Your task to perform on an android device: allow notifications from all sites in the chrome app Image 0: 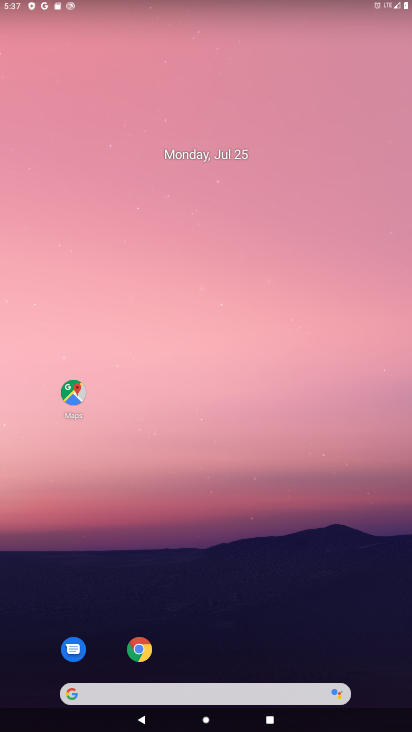
Step 0: drag from (274, 624) to (317, 60)
Your task to perform on an android device: allow notifications from all sites in the chrome app Image 1: 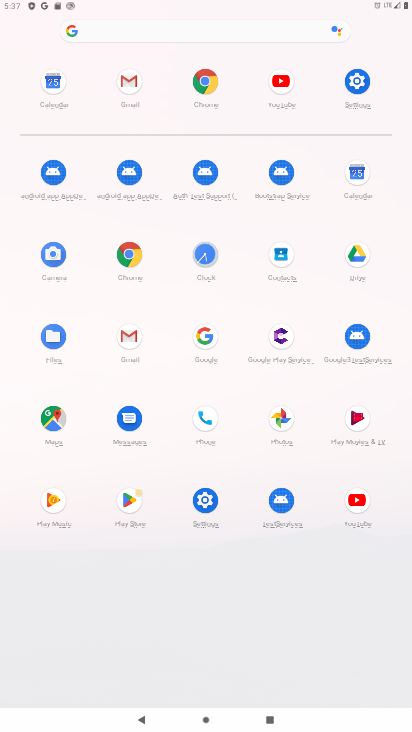
Step 1: click (126, 255)
Your task to perform on an android device: allow notifications from all sites in the chrome app Image 2: 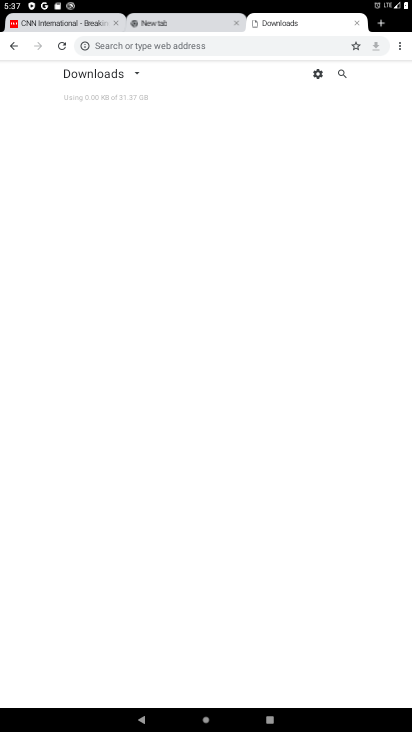
Step 2: drag from (396, 43) to (321, 214)
Your task to perform on an android device: allow notifications from all sites in the chrome app Image 3: 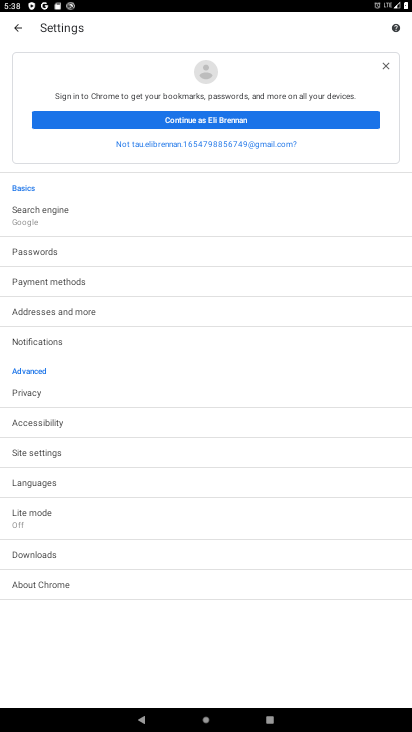
Step 3: click (62, 451)
Your task to perform on an android device: allow notifications from all sites in the chrome app Image 4: 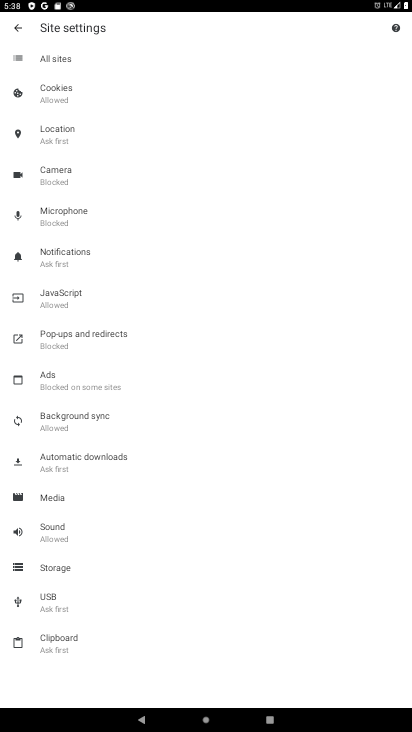
Step 4: click (80, 260)
Your task to perform on an android device: allow notifications from all sites in the chrome app Image 5: 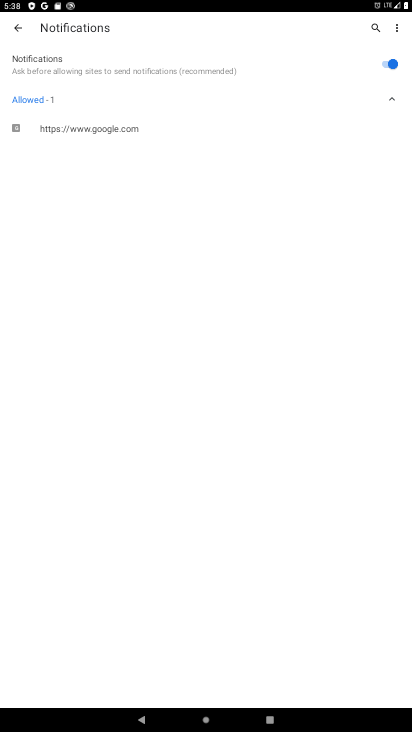
Step 5: task complete